Your task to perform on an android device: open chrome privacy settings Image 0: 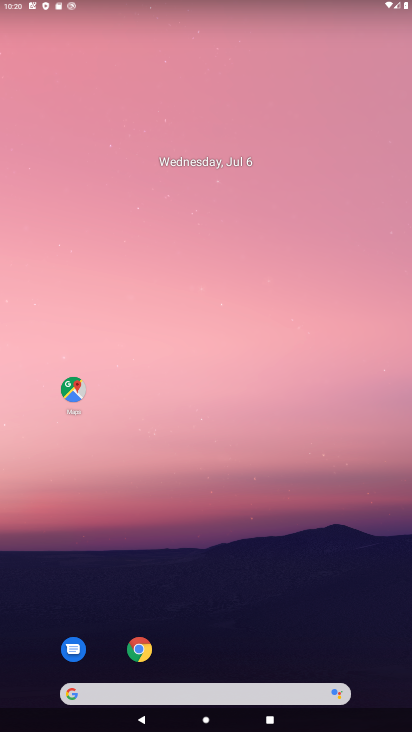
Step 0: drag from (377, 655) to (207, 139)
Your task to perform on an android device: open chrome privacy settings Image 1: 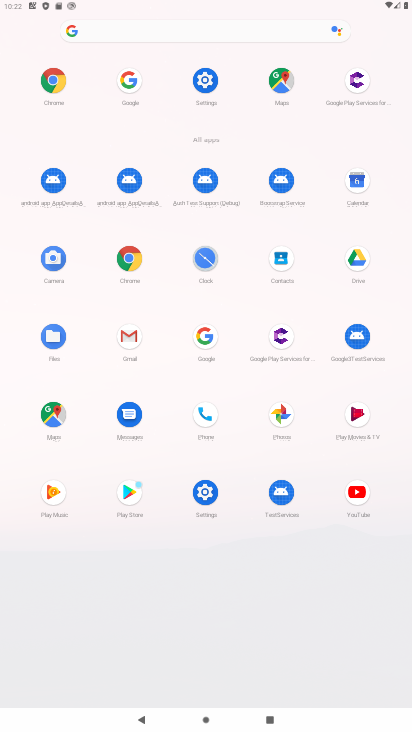
Step 1: click (58, 79)
Your task to perform on an android device: open chrome privacy settings Image 2: 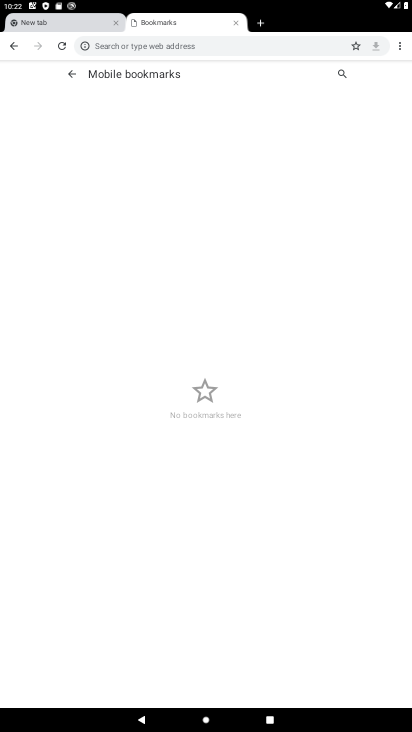
Step 2: press back button
Your task to perform on an android device: open chrome privacy settings Image 3: 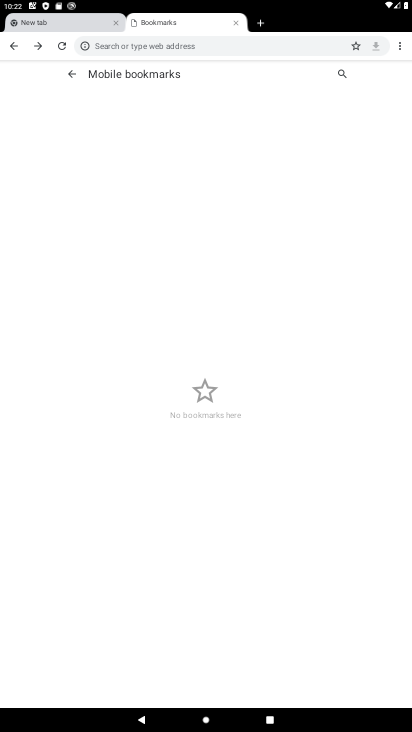
Step 3: click (400, 43)
Your task to perform on an android device: open chrome privacy settings Image 4: 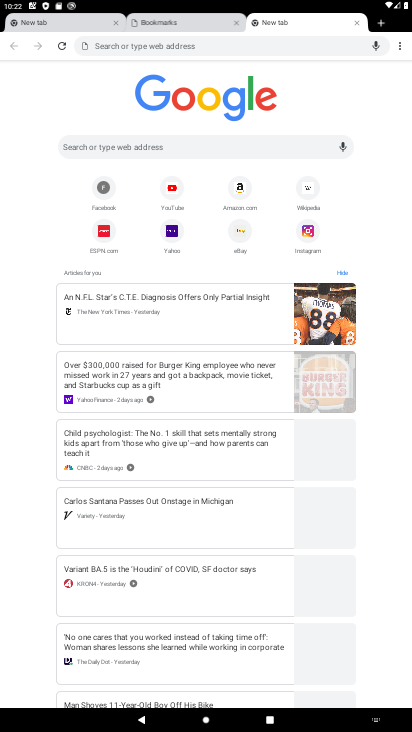
Step 4: click (400, 43)
Your task to perform on an android device: open chrome privacy settings Image 5: 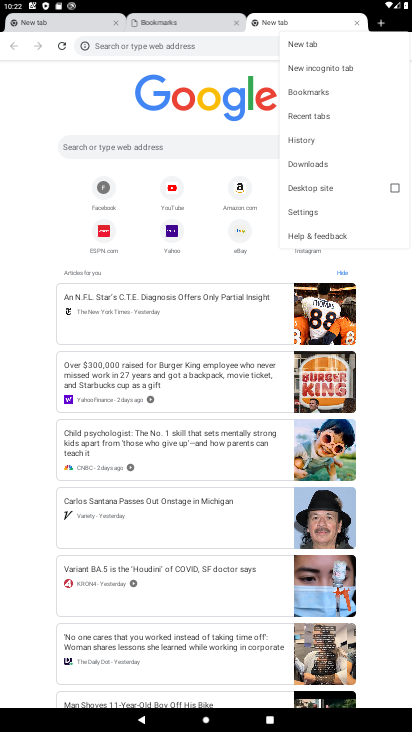
Step 5: click (311, 215)
Your task to perform on an android device: open chrome privacy settings Image 6: 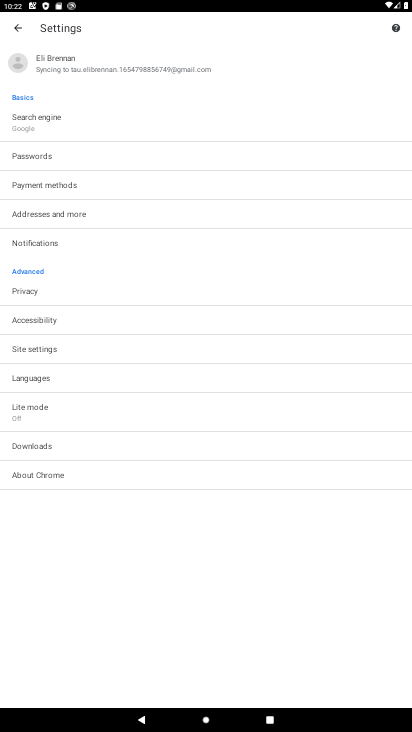
Step 6: click (36, 295)
Your task to perform on an android device: open chrome privacy settings Image 7: 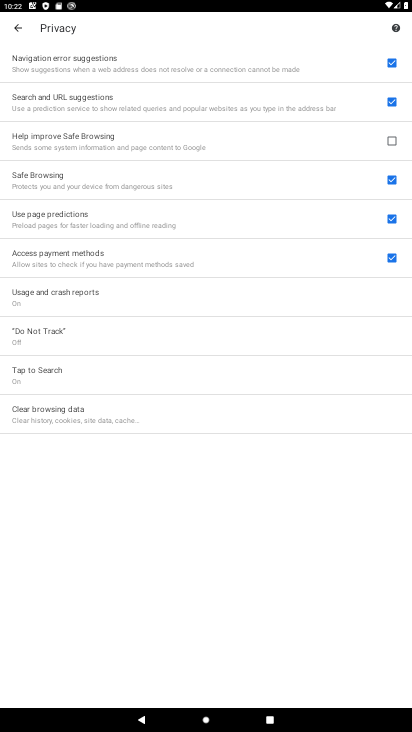
Step 7: task complete